Your task to perform on an android device: open chrome privacy settings Image 0: 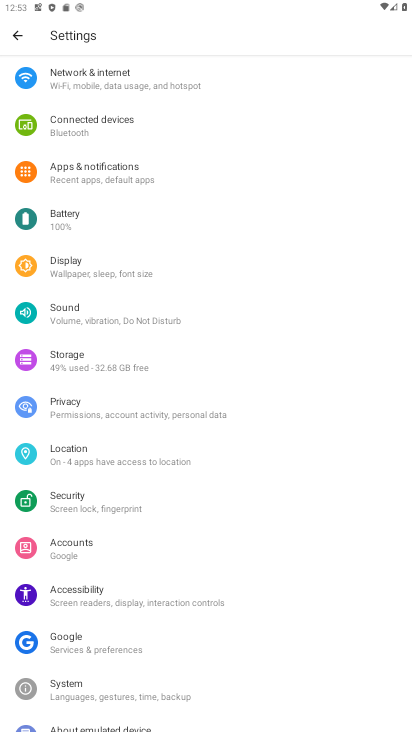
Step 0: press home button
Your task to perform on an android device: open chrome privacy settings Image 1: 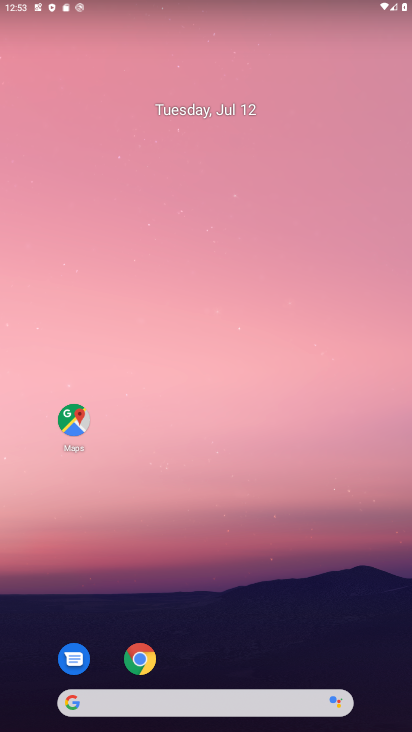
Step 1: click (138, 660)
Your task to perform on an android device: open chrome privacy settings Image 2: 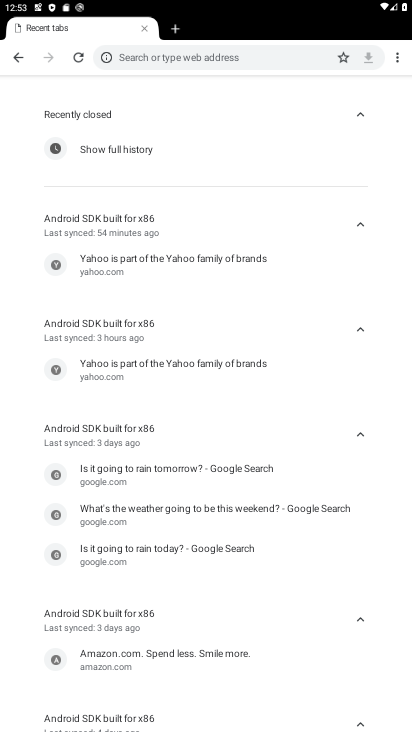
Step 2: click (394, 62)
Your task to perform on an android device: open chrome privacy settings Image 3: 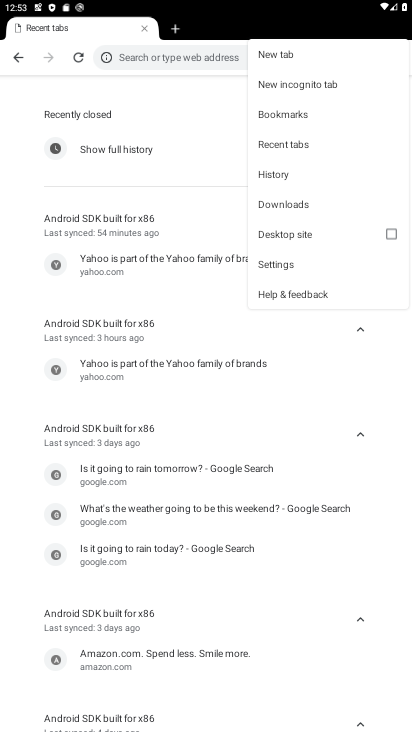
Step 3: click (274, 262)
Your task to perform on an android device: open chrome privacy settings Image 4: 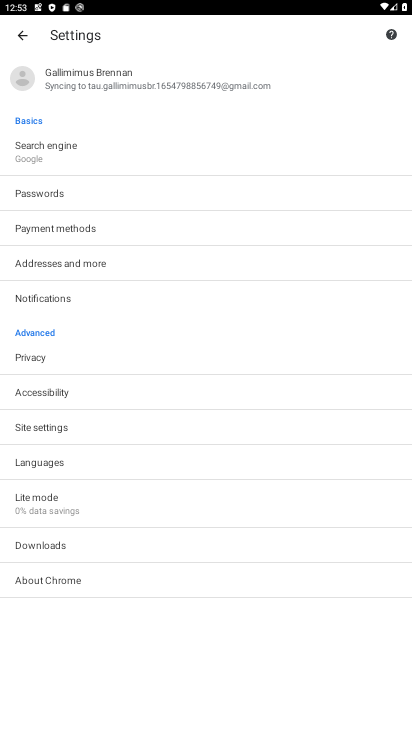
Step 4: click (38, 357)
Your task to perform on an android device: open chrome privacy settings Image 5: 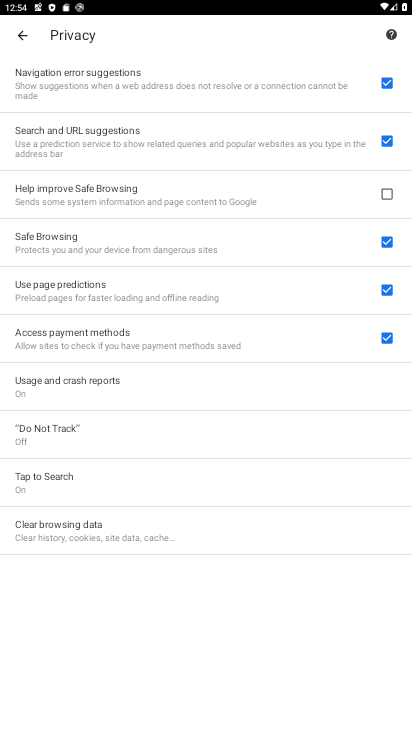
Step 5: task complete